Your task to perform on an android device: See recent photos Image 0: 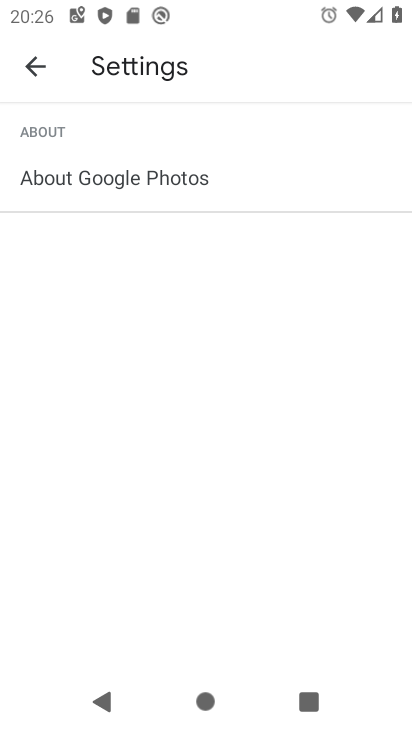
Step 0: press home button
Your task to perform on an android device: See recent photos Image 1: 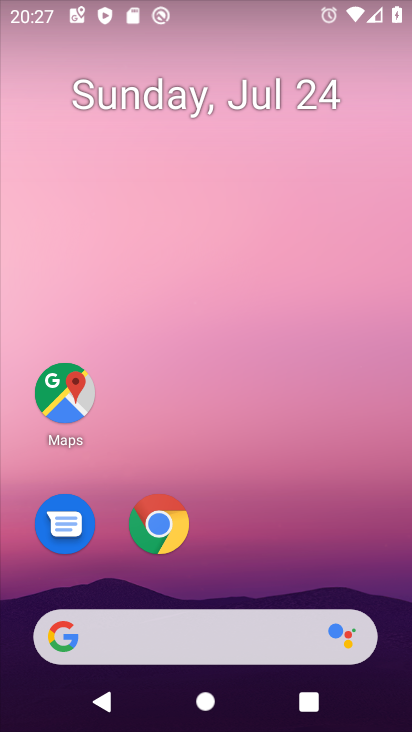
Step 1: drag from (217, 529) to (206, 6)
Your task to perform on an android device: See recent photos Image 2: 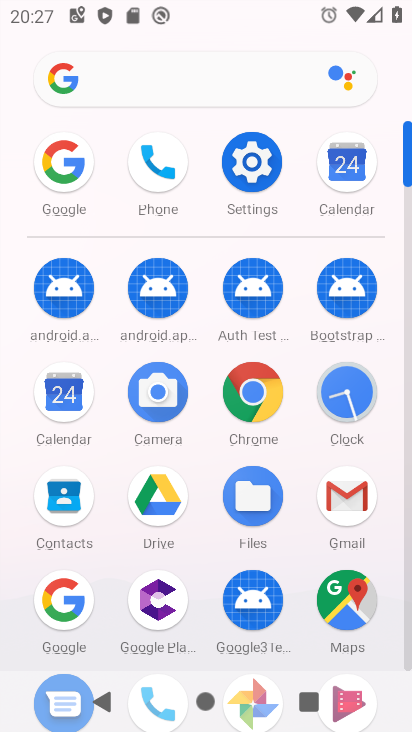
Step 2: drag from (211, 525) to (214, 140)
Your task to perform on an android device: See recent photos Image 3: 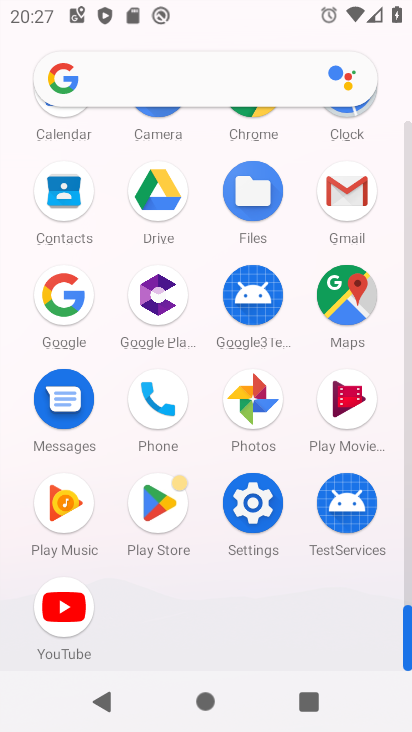
Step 3: click (245, 409)
Your task to perform on an android device: See recent photos Image 4: 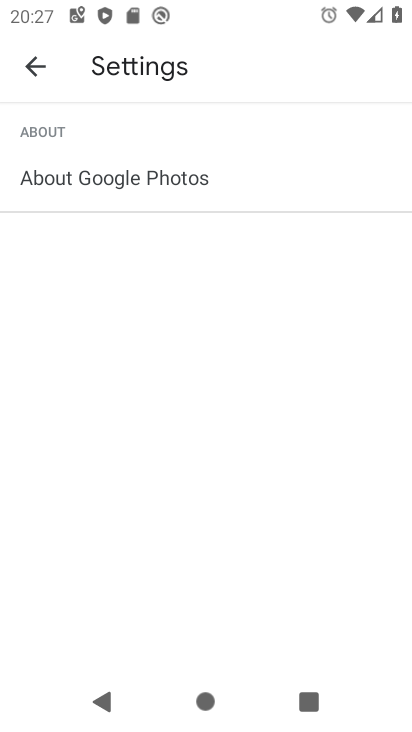
Step 4: click (28, 64)
Your task to perform on an android device: See recent photos Image 5: 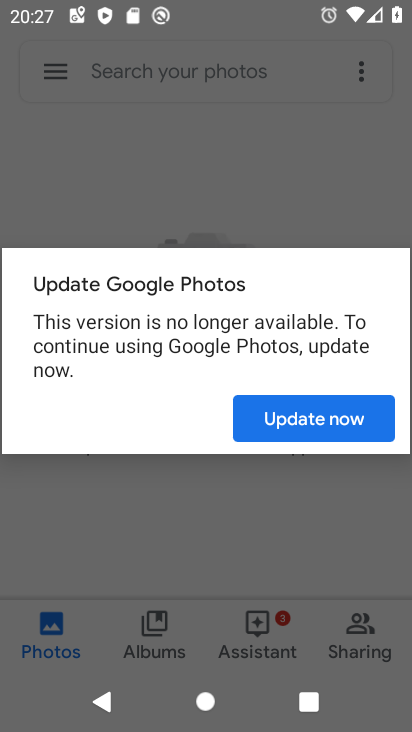
Step 5: click (302, 424)
Your task to perform on an android device: See recent photos Image 6: 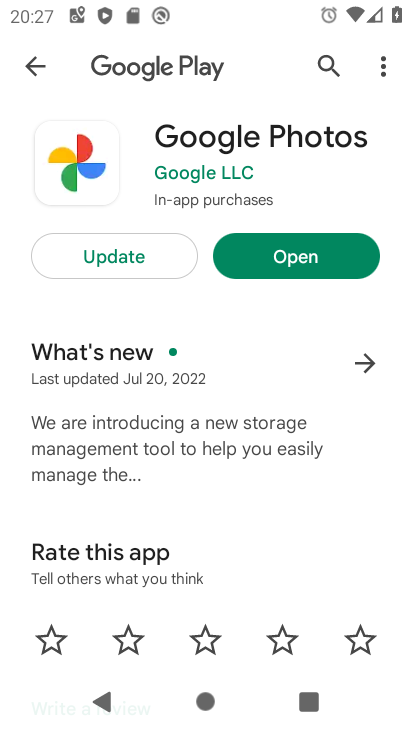
Step 6: click (304, 256)
Your task to perform on an android device: See recent photos Image 7: 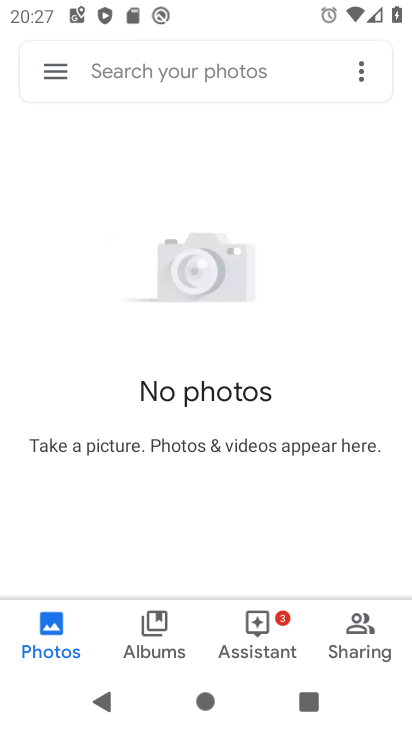
Step 7: click (61, 630)
Your task to perform on an android device: See recent photos Image 8: 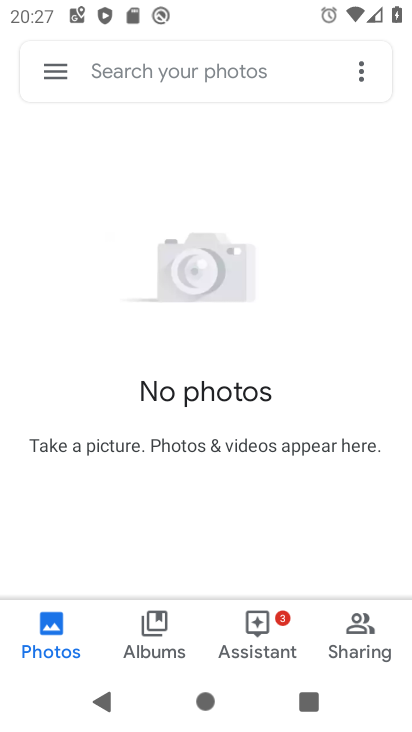
Step 8: task complete